Your task to perform on an android device: Open the calendar and show me this week's events? Image 0: 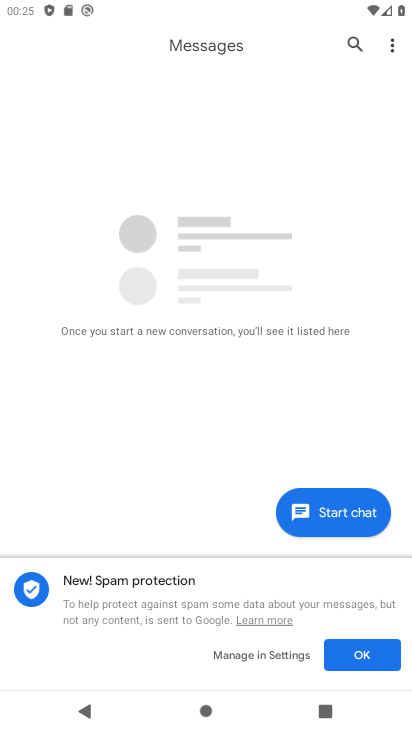
Step 0: press back button
Your task to perform on an android device: Open the calendar and show me this week's events? Image 1: 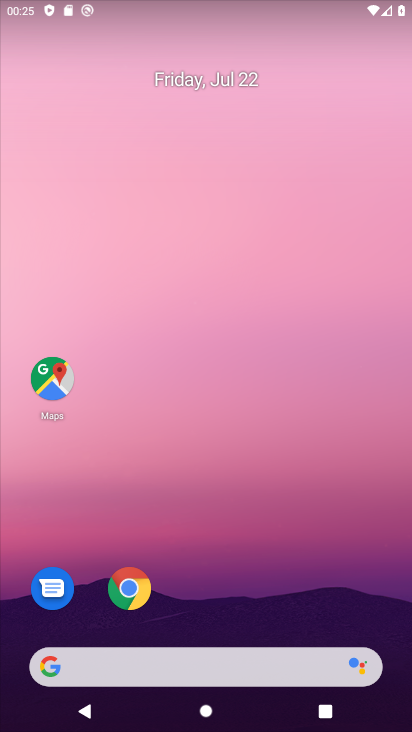
Step 1: drag from (186, 591) to (335, 8)
Your task to perform on an android device: Open the calendar and show me this week's events? Image 2: 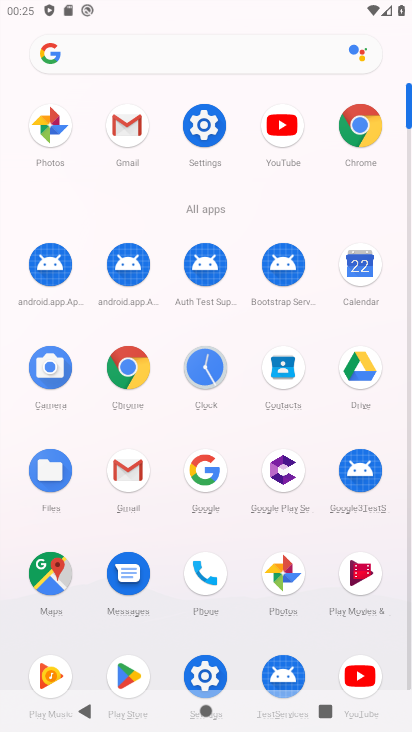
Step 2: click (363, 275)
Your task to perform on an android device: Open the calendar and show me this week's events? Image 3: 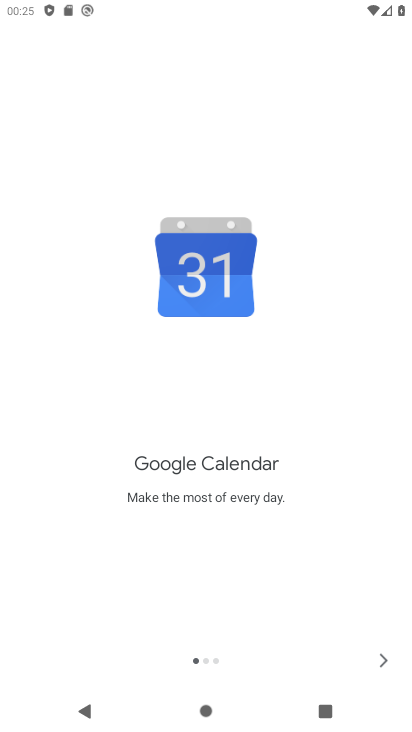
Step 3: click (379, 668)
Your task to perform on an android device: Open the calendar and show me this week's events? Image 4: 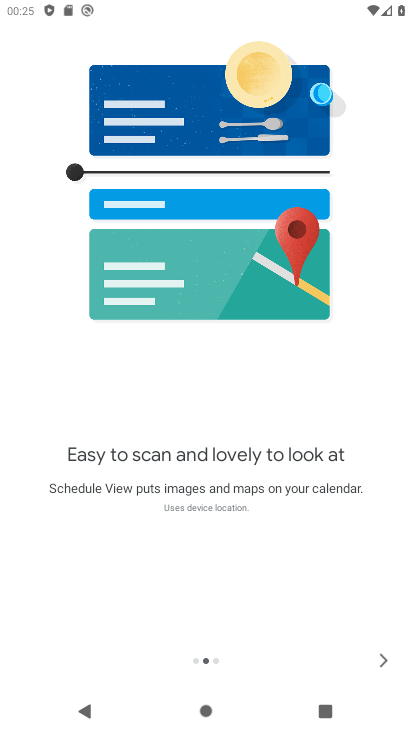
Step 4: click (381, 639)
Your task to perform on an android device: Open the calendar and show me this week's events? Image 5: 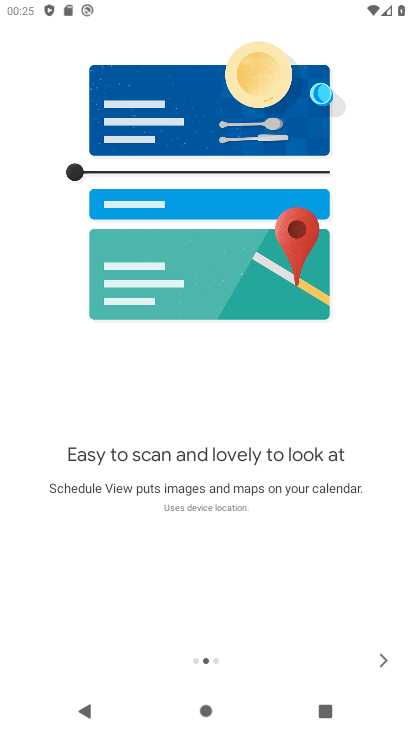
Step 5: click (366, 660)
Your task to perform on an android device: Open the calendar and show me this week's events? Image 6: 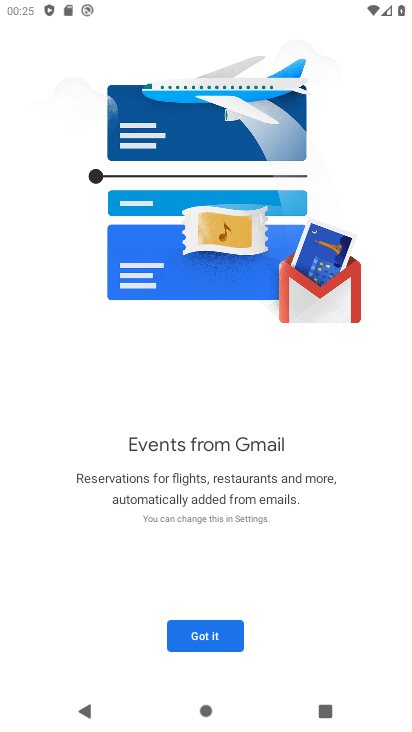
Step 6: click (212, 638)
Your task to perform on an android device: Open the calendar and show me this week's events? Image 7: 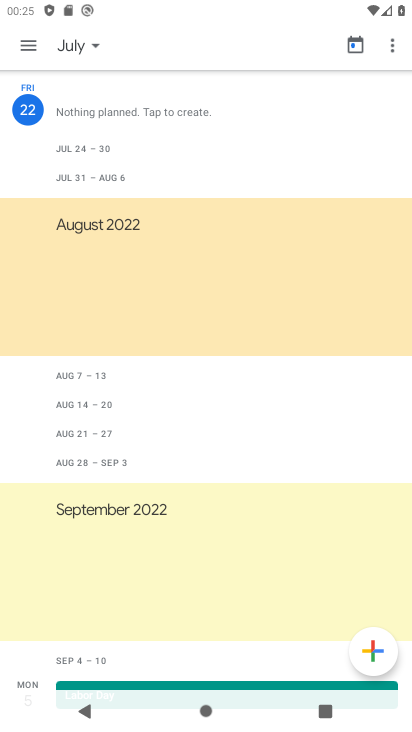
Step 7: click (87, 39)
Your task to perform on an android device: Open the calendar and show me this week's events? Image 8: 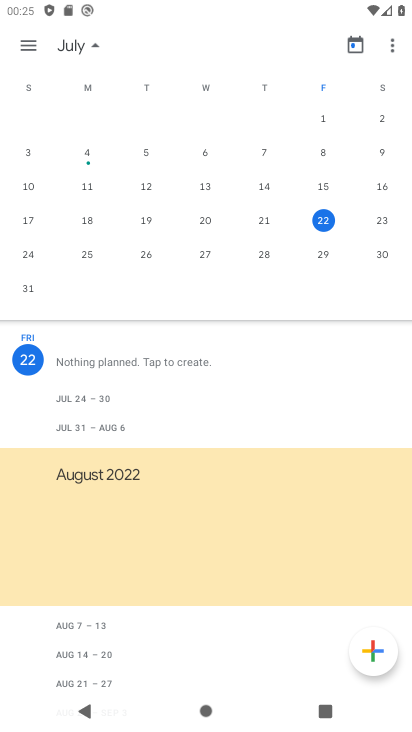
Step 8: click (320, 220)
Your task to perform on an android device: Open the calendar and show me this week's events? Image 9: 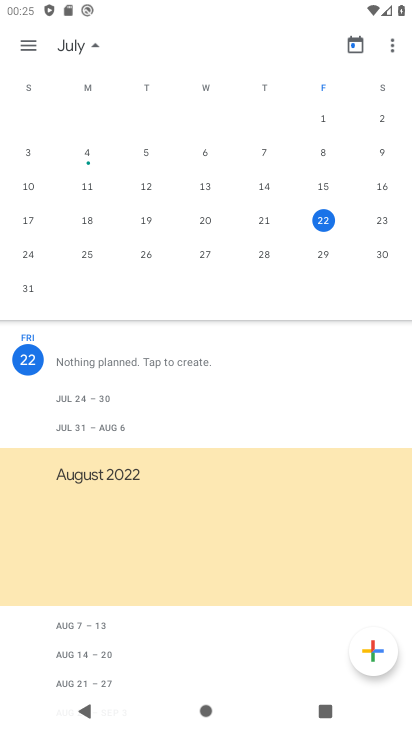
Step 9: task complete